Your task to perform on an android device: Open Android settings Image 0: 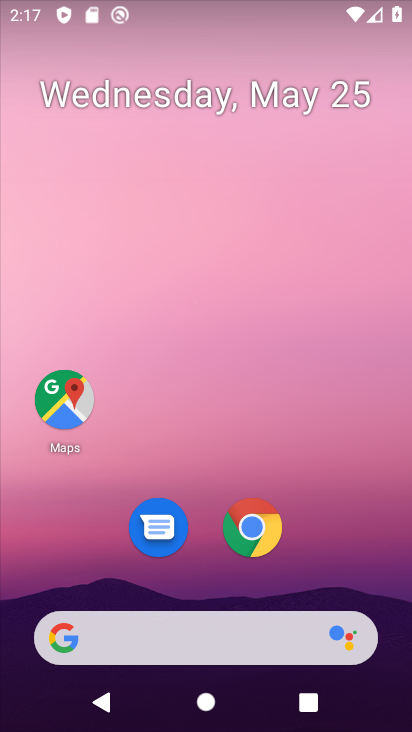
Step 0: drag from (183, 544) to (243, 110)
Your task to perform on an android device: Open Android settings Image 1: 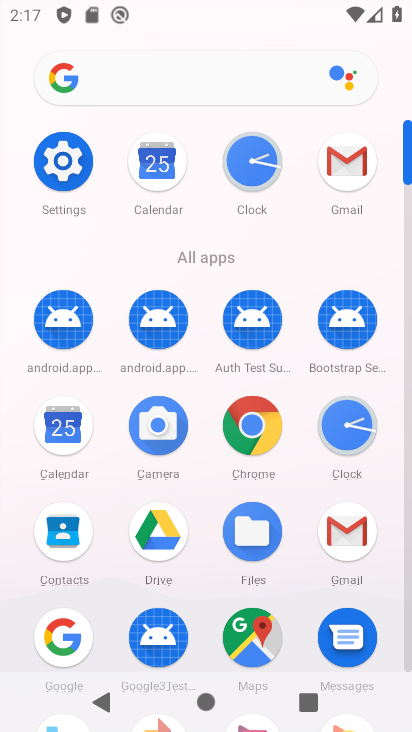
Step 1: click (41, 162)
Your task to perform on an android device: Open Android settings Image 2: 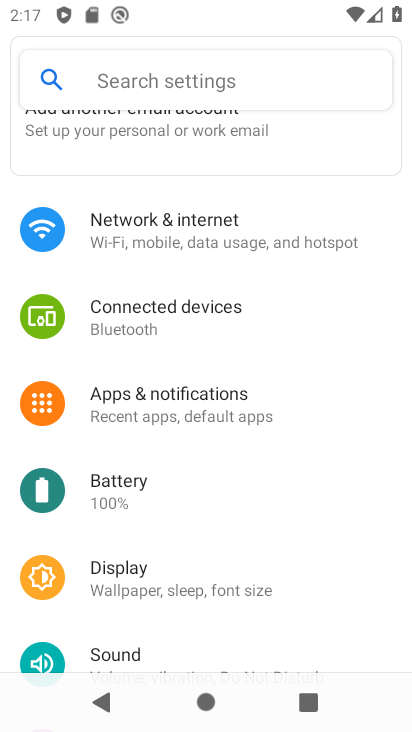
Step 2: drag from (148, 631) to (246, 162)
Your task to perform on an android device: Open Android settings Image 3: 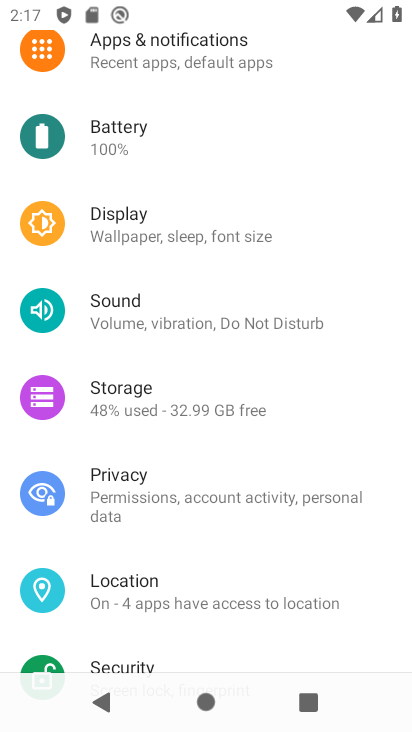
Step 3: drag from (123, 625) to (250, 75)
Your task to perform on an android device: Open Android settings Image 4: 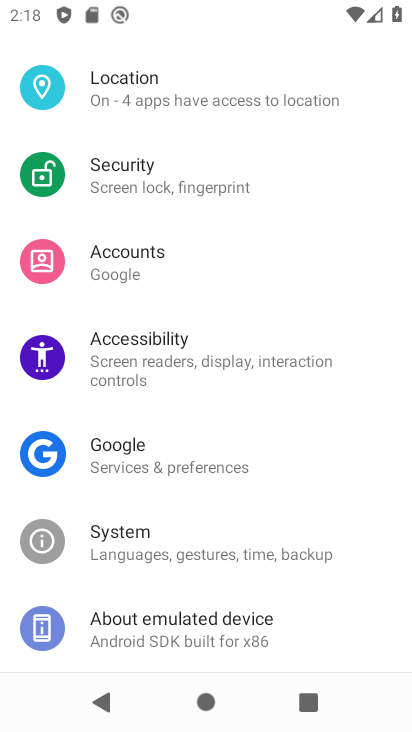
Step 4: drag from (217, 679) to (272, 142)
Your task to perform on an android device: Open Android settings Image 5: 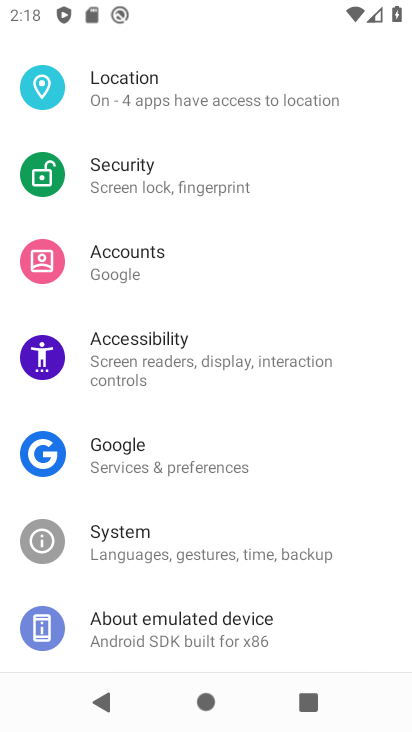
Step 5: click (181, 613)
Your task to perform on an android device: Open Android settings Image 6: 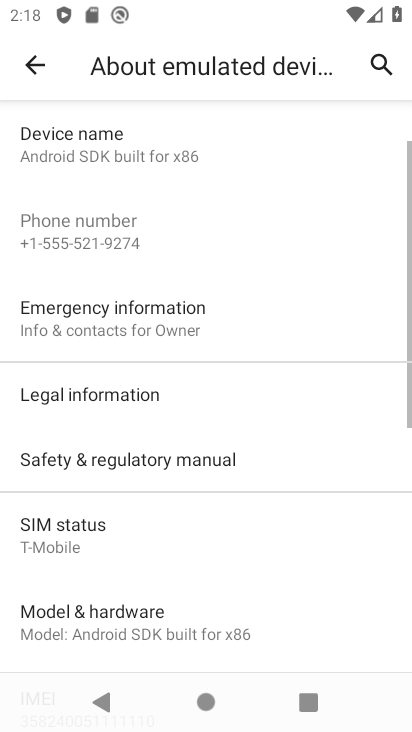
Step 6: task complete